Your task to perform on an android device: turn off airplane mode Image 0: 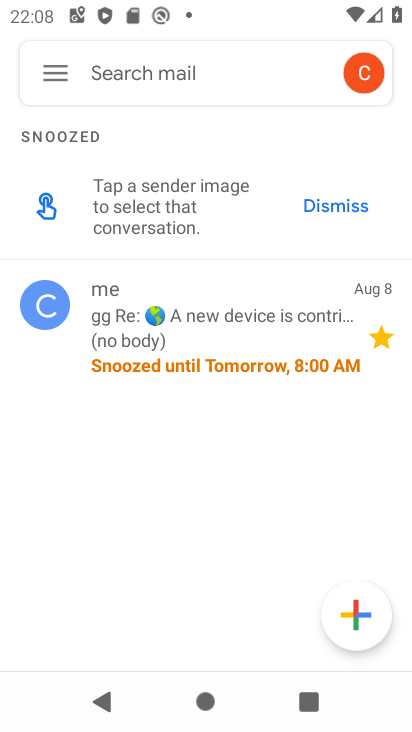
Step 0: press home button
Your task to perform on an android device: turn off airplane mode Image 1: 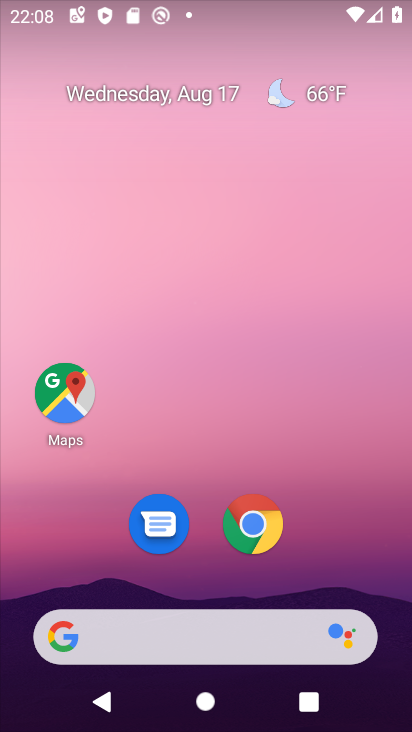
Step 1: drag from (325, 507) to (344, 27)
Your task to perform on an android device: turn off airplane mode Image 2: 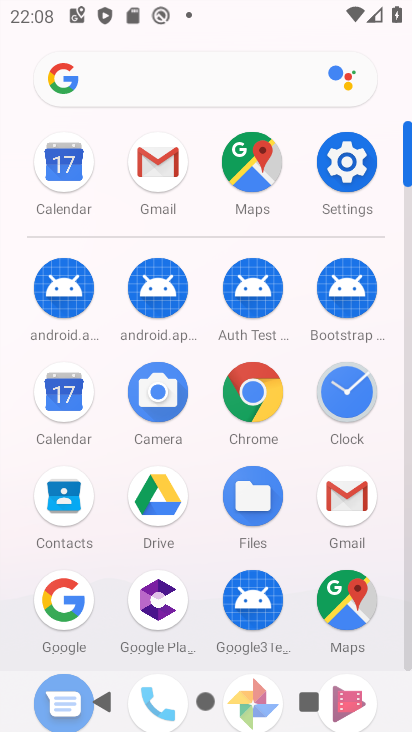
Step 2: click (343, 152)
Your task to perform on an android device: turn off airplane mode Image 3: 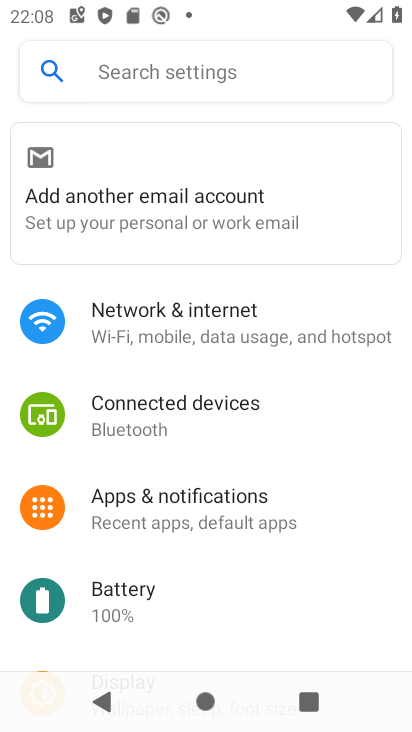
Step 3: click (248, 332)
Your task to perform on an android device: turn off airplane mode Image 4: 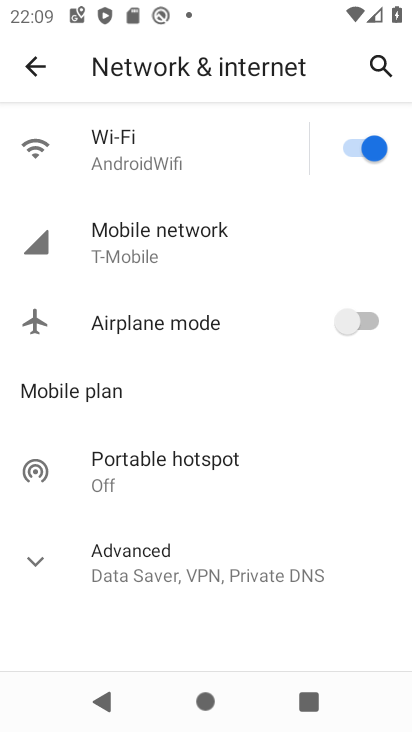
Step 4: task complete